Your task to perform on an android device: Go to accessibility settings Image 0: 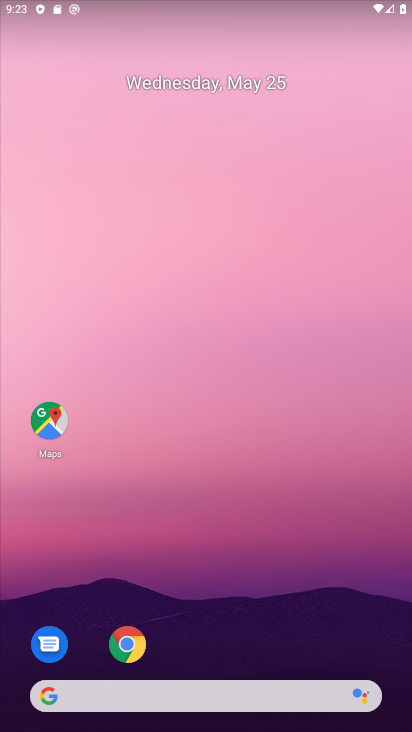
Step 0: drag from (320, 663) to (312, 6)
Your task to perform on an android device: Go to accessibility settings Image 1: 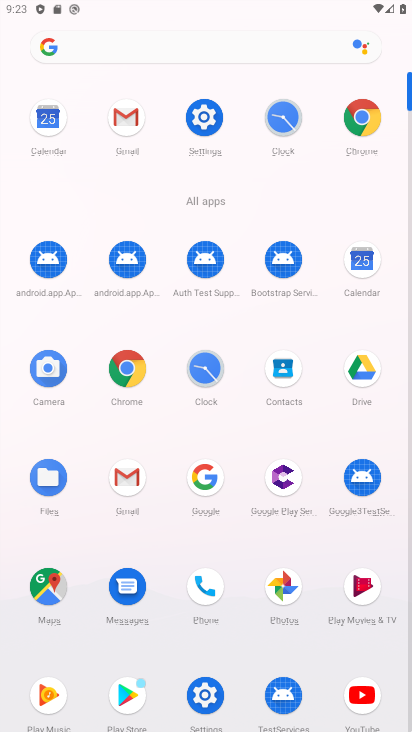
Step 1: click (208, 105)
Your task to perform on an android device: Go to accessibility settings Image 2: 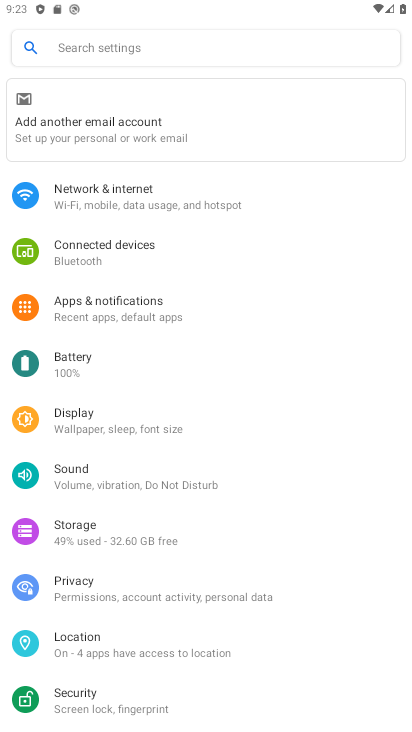
Step 2: drag from (262, 594) to (215, 205)
Your task to perform on an android device: Go to accessibility settings Image 3: 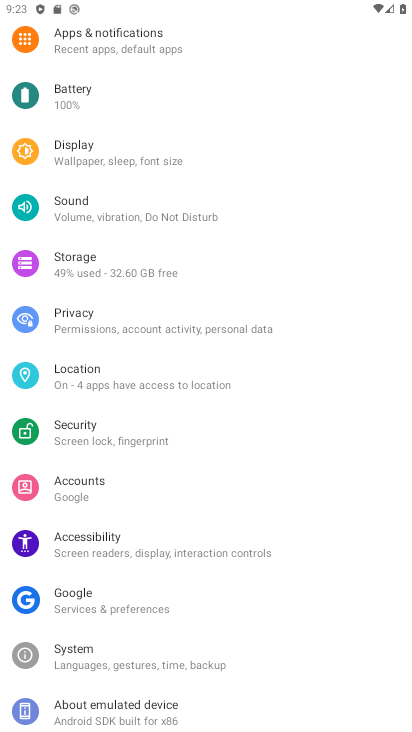
Step 3: click (105, 521)
Your task to perform on an android device: Go to accessibility settings Image 4: 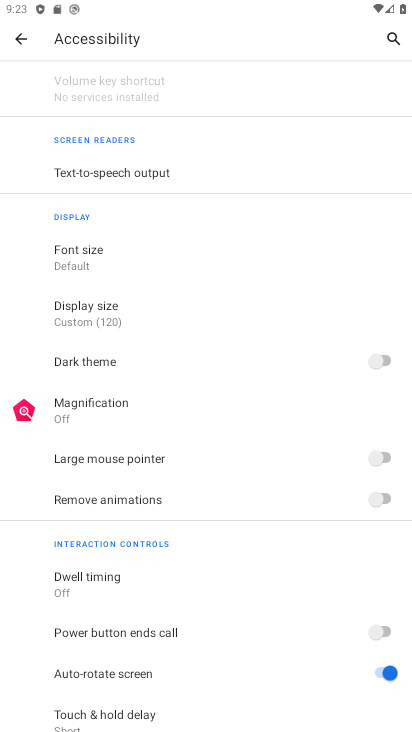
Step 4: task complete